Your task to perform on an android device: snooze an email in the gmail app Image 0: 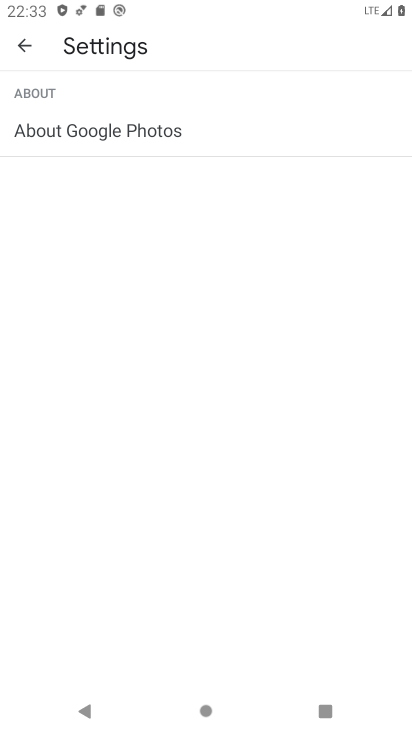
Step 0: press home button
Your task to perform on an android device: snooze an email in the gmail app Image 1: 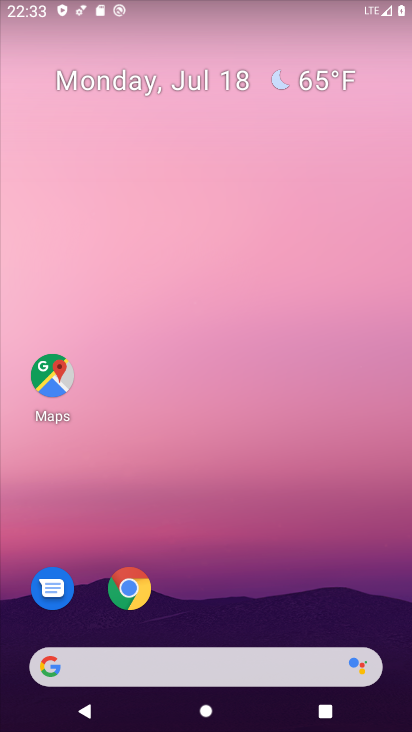
Step 1: drag from (243, 549) to (242, 77)
Your task to perform on an android device: snooze an email in the gmail app Image 2: 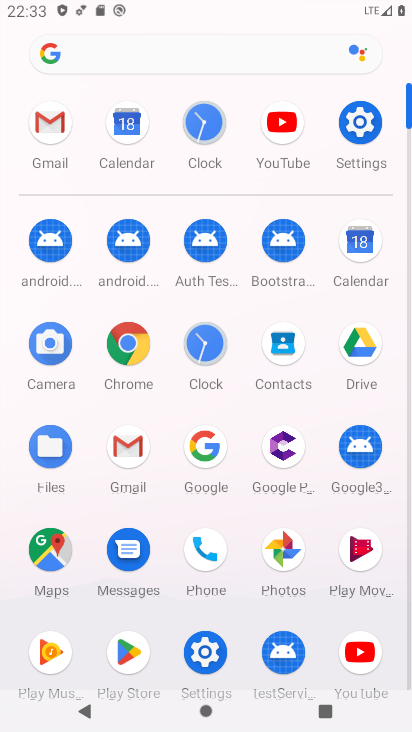
Step 2: click (54, 126)
Your task to perform on an android device: snooze an email in the gmail app Image 3: 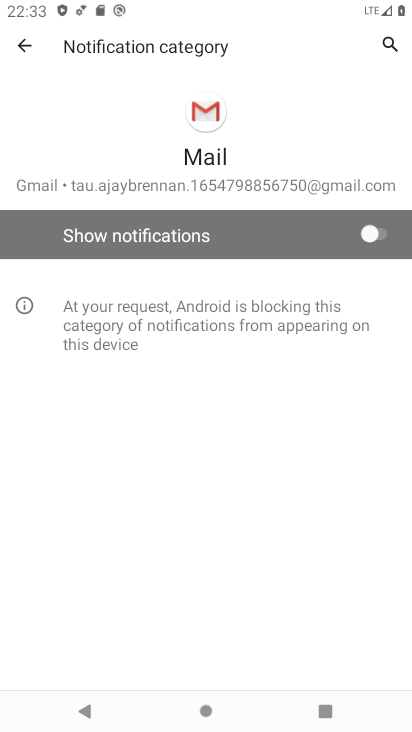
Step 3: click (18, 30)
Your task to perform on an android device: snooze an email in the gmail app Image 4: 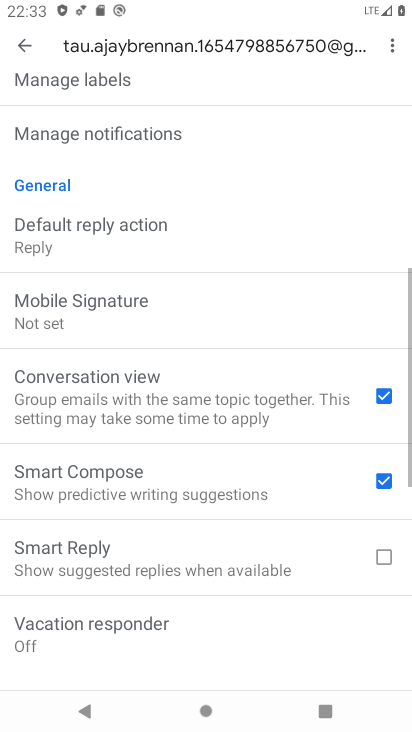
Step 4: click (16, 39)
Your task to perform on an android device: snooze an email in the gmail app Image 5: 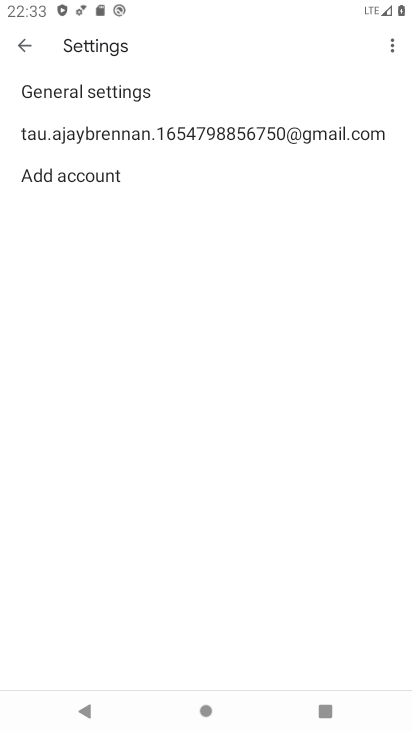
Step 5: click (24, 43)
Your task to perform on an android device: snooze an email in the gmail app Image 6: 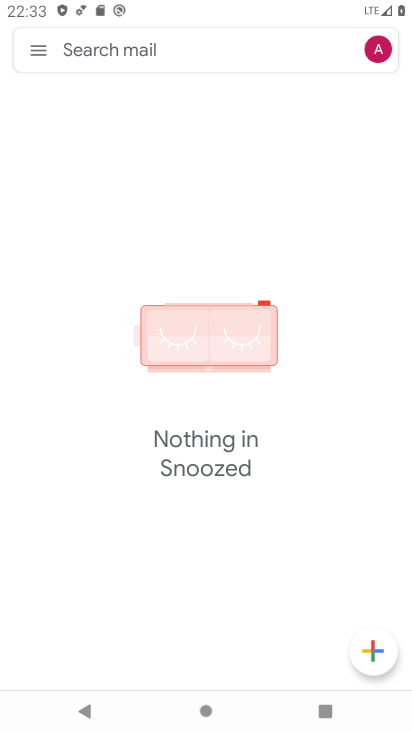
Step 6: click (37, 51)
Your task to perform on an android device: snooze an email in the gmail app Image 7: 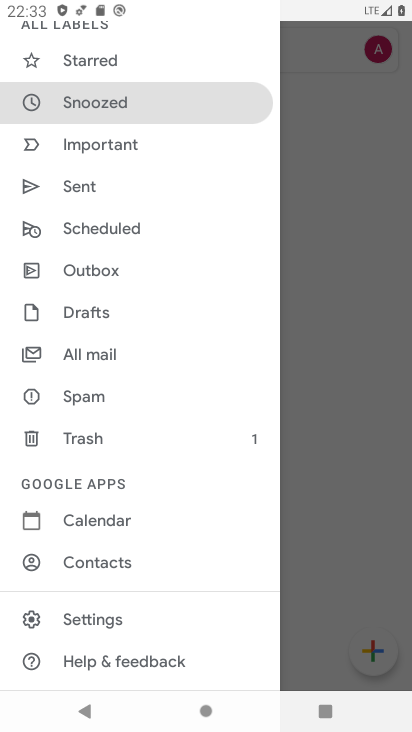
Step 7: click (112, 358)
Your task to perform on an android device: snooze an email in the gmail app Image 8: 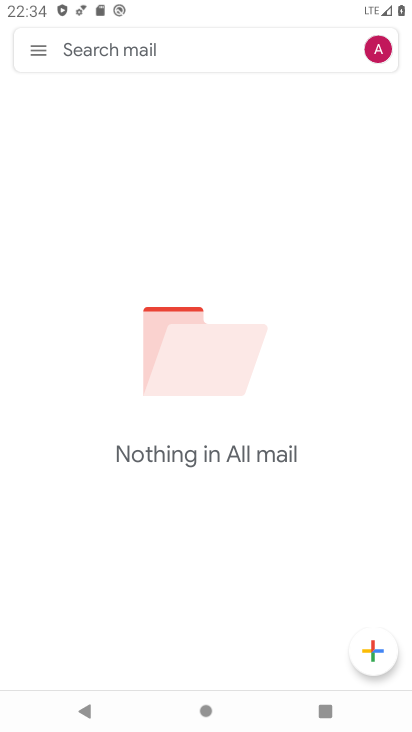
Step 8: task complete